Your task to perform on an android device: Go to ESPN.com Image 0: 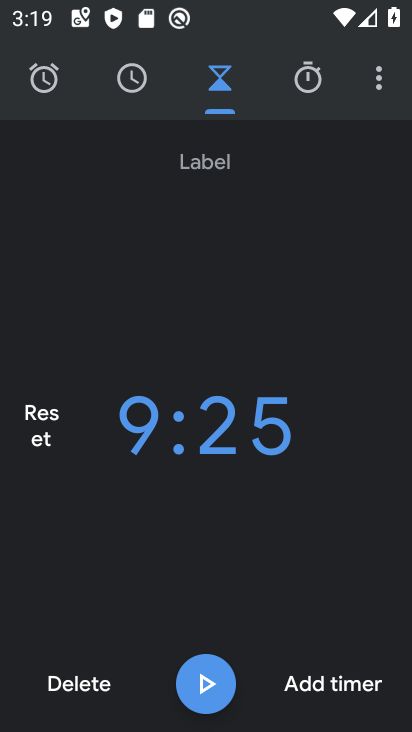
Step 0: press back button
Your task to perform on an android device: Go to ESPN.com Image 1: 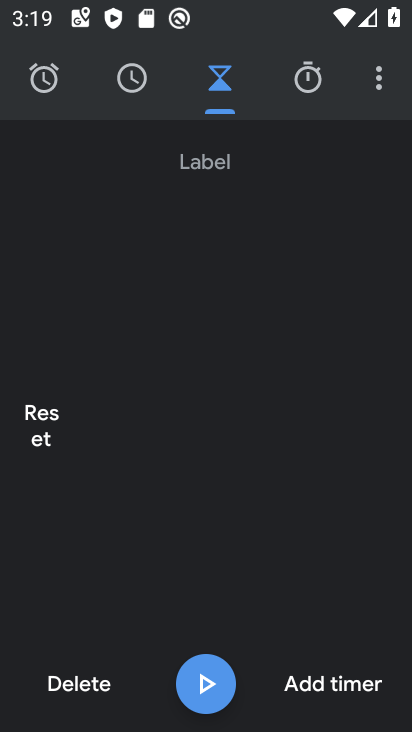
Step 1: press back button
Your task to perform on an android device: Go to ESPN.com Image 2: 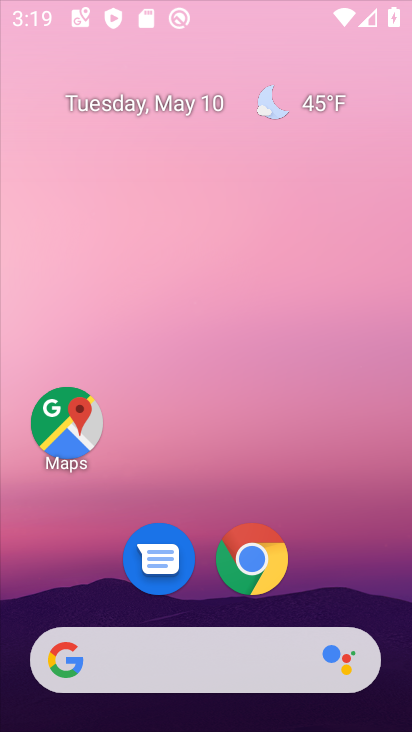
Step 2: press back button
Your task to perform on an android device: Go to ESPN.com Image 3: 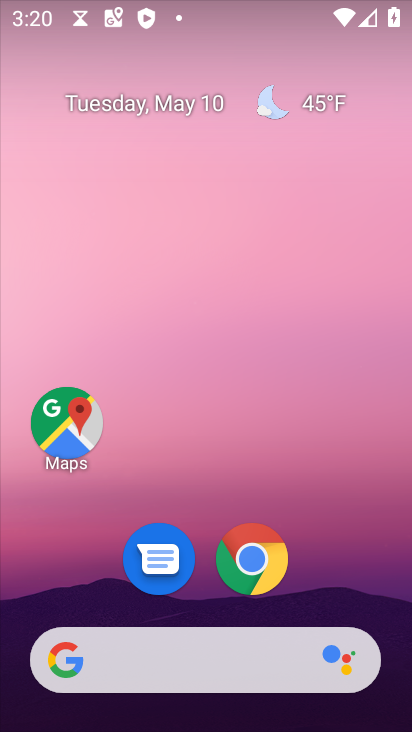
Step 3: press back button
Your task to perform on an android device: Go to ESPN.com Image 4: 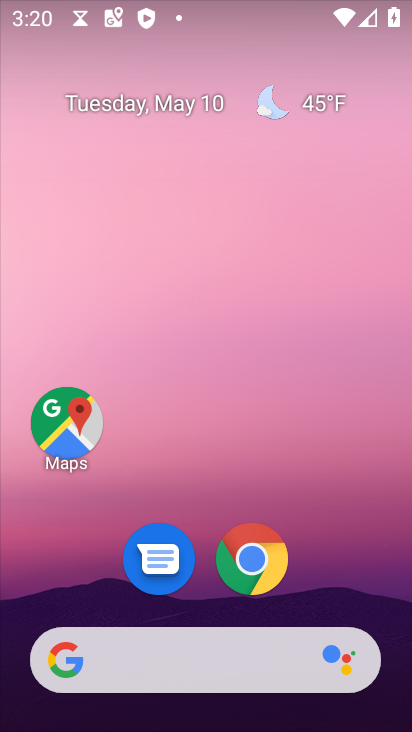
Step 4: press back button
Your task to perform on an android device: Go to ESPN.com Image 5: 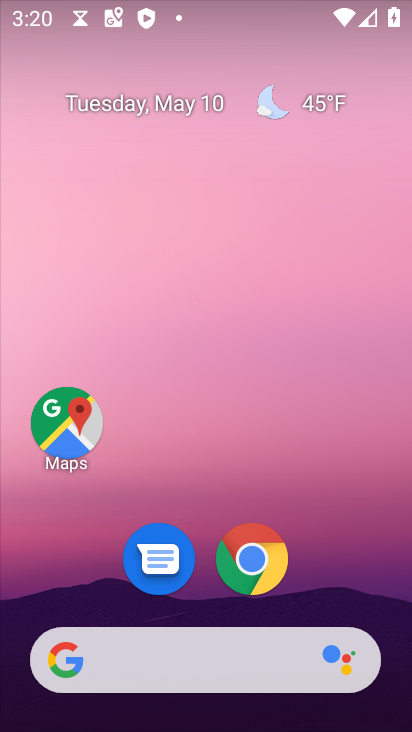
Step 5: drag from (361, 576) to (138, 6)
Your task to perform on an android device: Go to ESPN.com Image 6: 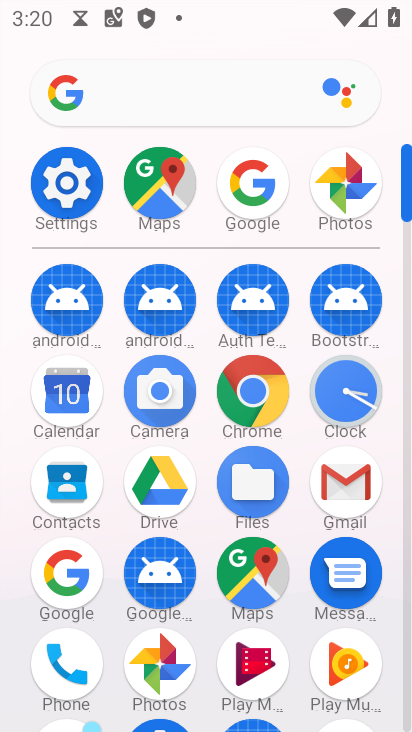
Step 6: drag from (273, 406) to (162, 40)
Your task to perform on an android device: Go to ESPN.com Image 7: 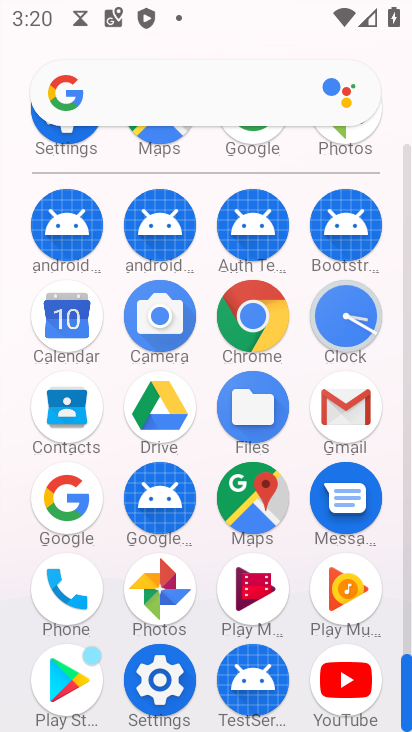
Step 7: click (254, 315)
Your task to perform on an android device: Go to ESPN.com Image 8: 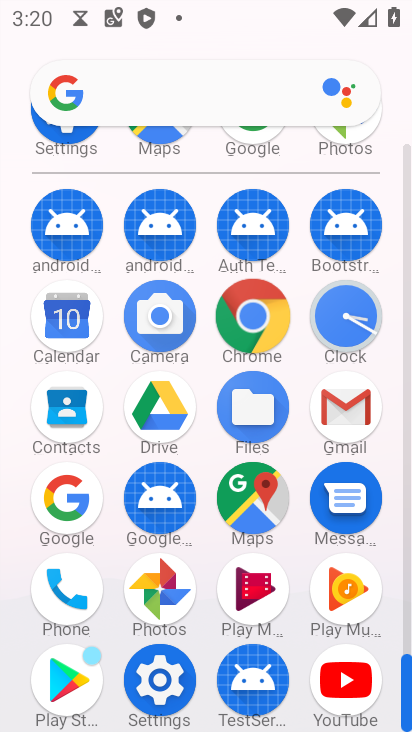
Step 8: click (254, 315)
Your task to perform on an android device: Go to ESPN.com Image 9: 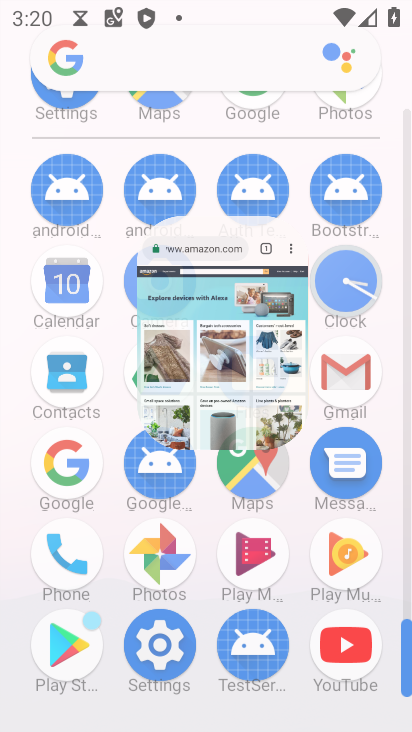
Step 9: click (254, 315)
Your task to perform on an android device: Go to ESPN.com Image 10: 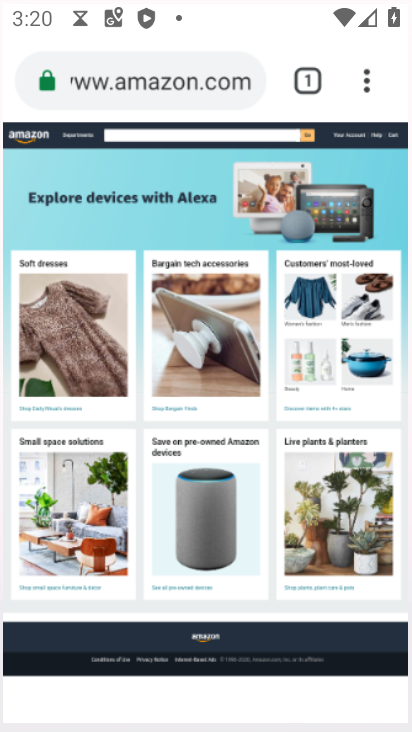
Step 10: click (254, 315)
Your task to perform on an android device: Go to ESPN.com Image 11: 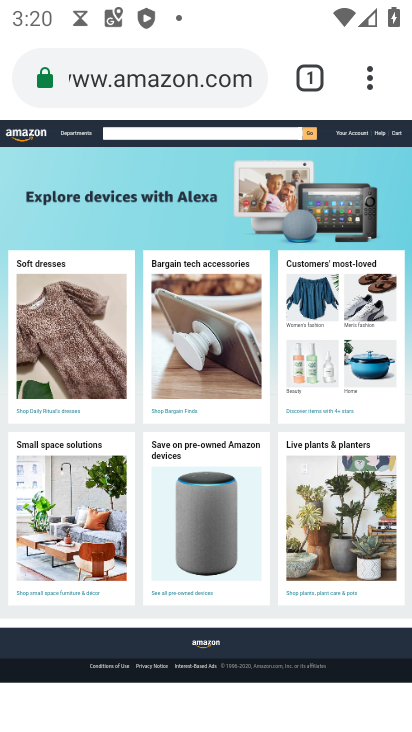
Step 11: click (371, 69)
Your task to perform on an android device: Go to ESPN.com Image 12: 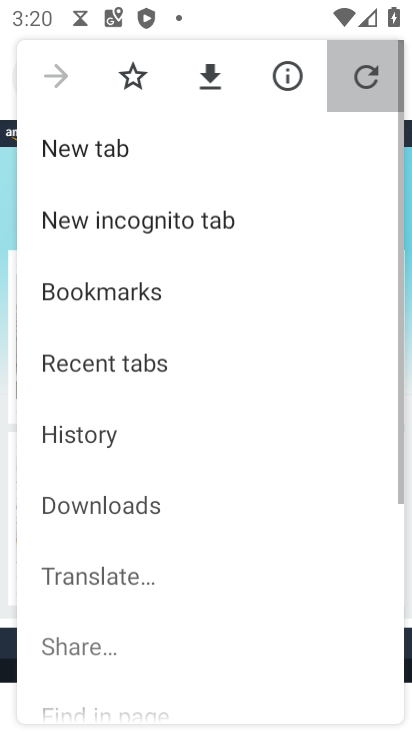
Step 12: click (371, 72)
Your task to perform on an android device: Go to ESPN.com Image 13: 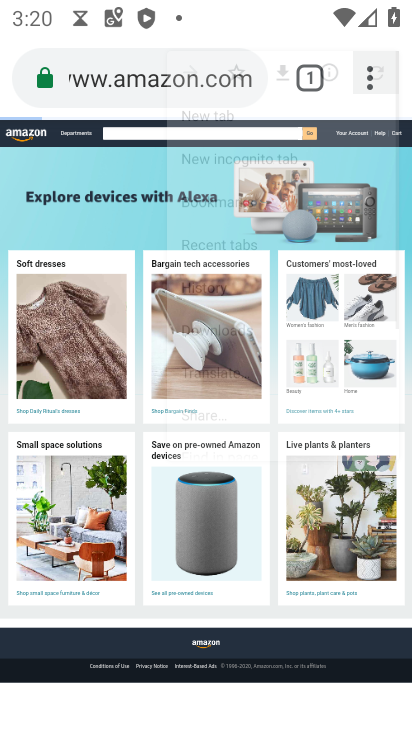
Step 13: click (371, 75)
Your task to perform on an android device: Go to ESPN.com Image 14: 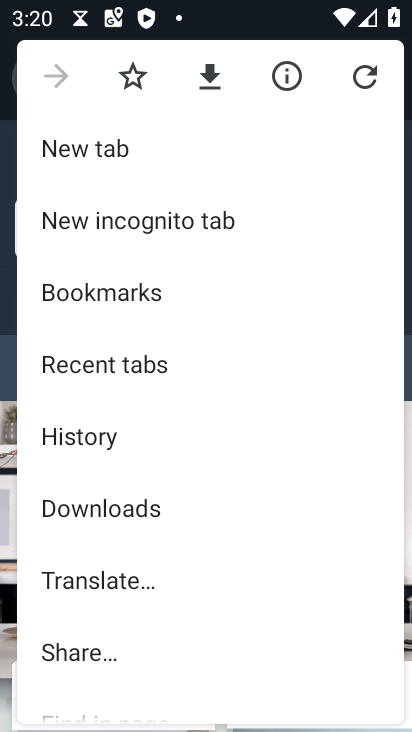
Step 14: click (95, 144)
Your task to perform on an android device: Go to ESPN.com Image 15: 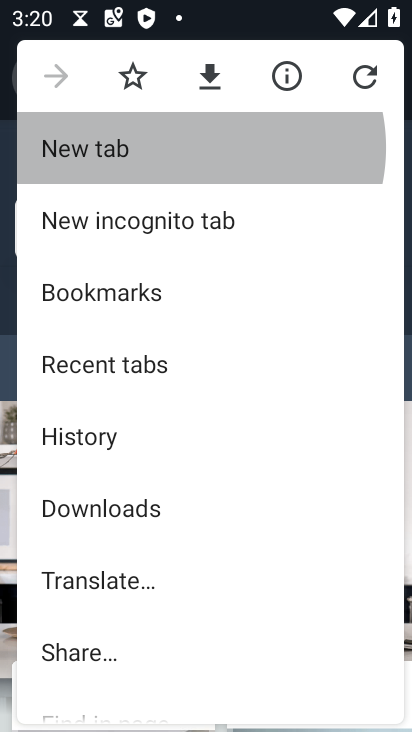
Step 15: click (90, 148)
Your task to perform on an android device: Go to ESPN.com Image 16: 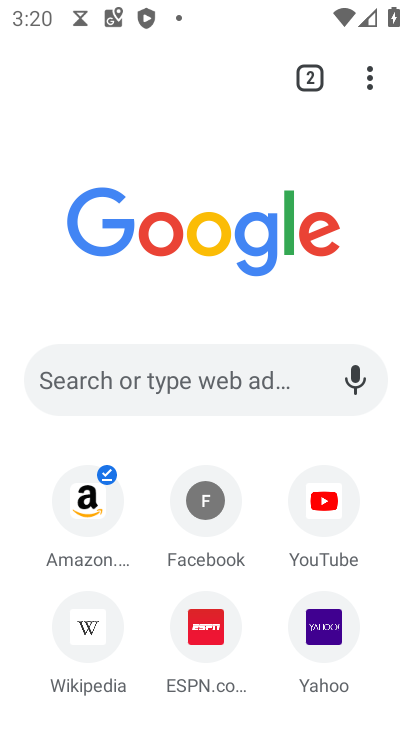
Step 16: click (190, 613)
Your task to perform on an android device: Go to ESPN.com Image 17: 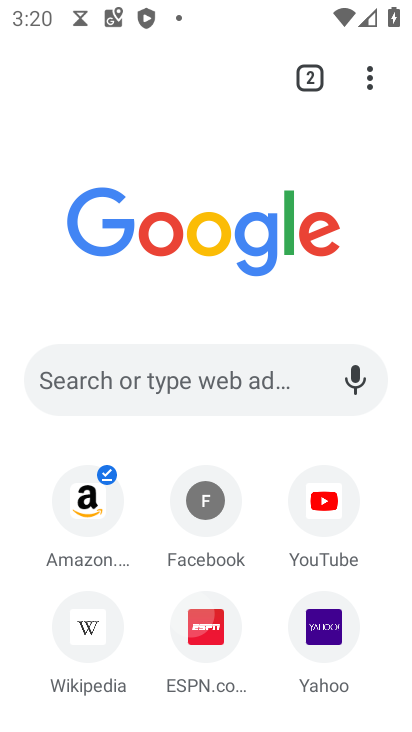
Step 17: click (190, 613)
Your task to perform on an android device: Go to ESPN.com Image 18: 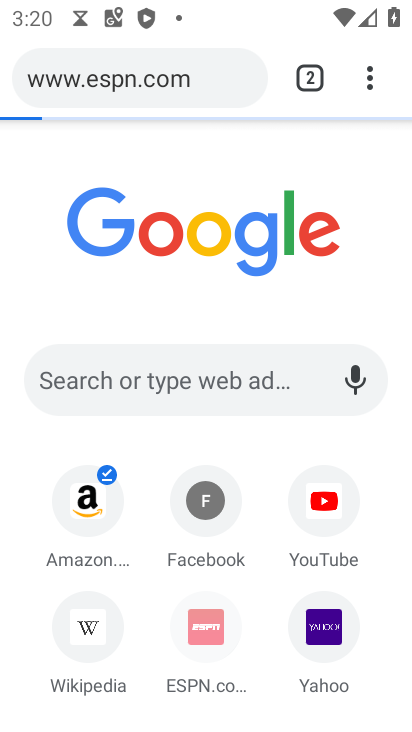
Step 18: click (191, 621)
Your task to perform on an android device: Go to ESPN.com Image 19: 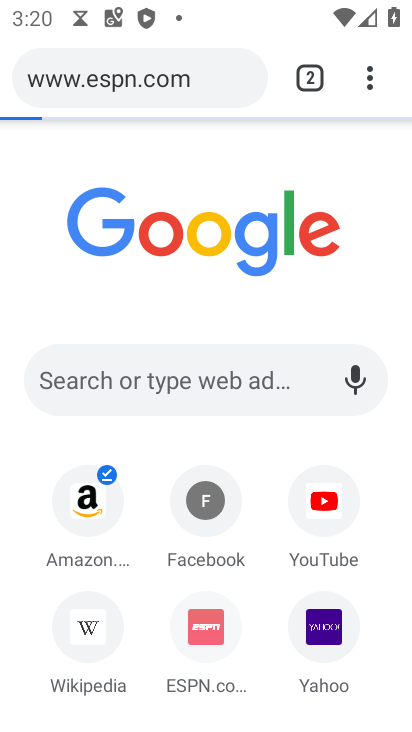
Step 19: click (195, 625)
Your task to perform on an android device: Go to ESPN.com Image 20: 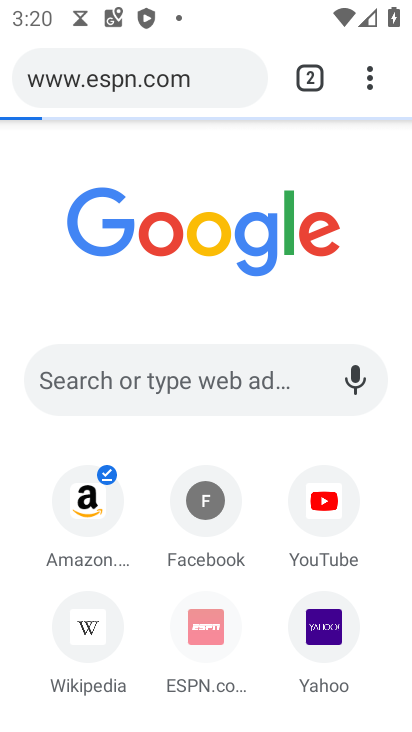
Step 20: click (196, 626)
Your task to perform on an android device: Go to ESPN.com Image 21: 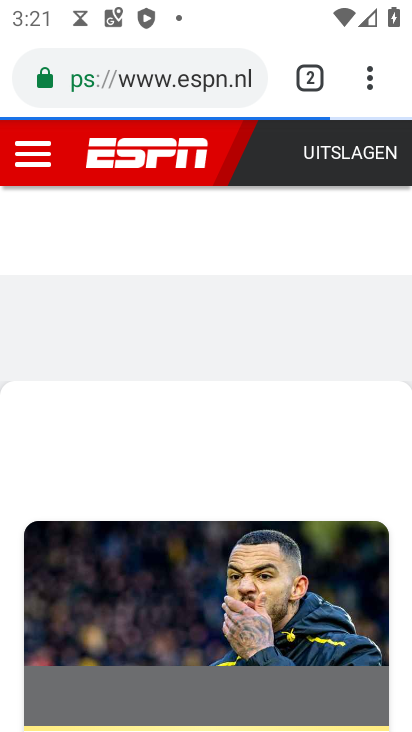
Step 21: click (358, 119)
Your task to perform on an android device: Go to ESPN.com Image 22: 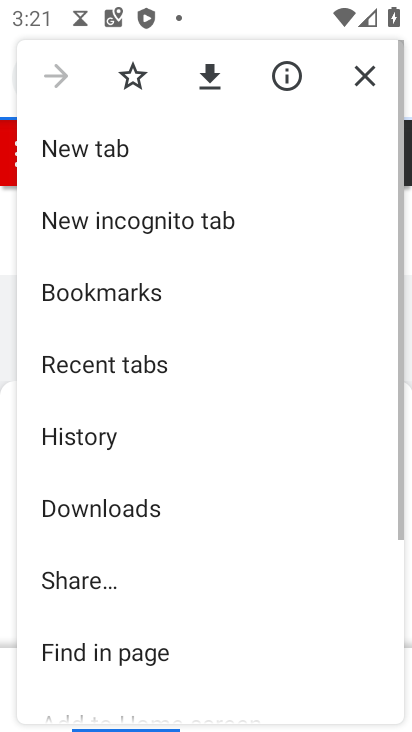
Step 22: task complete